Your task to perform on an android device: Open my contact list Image 0: 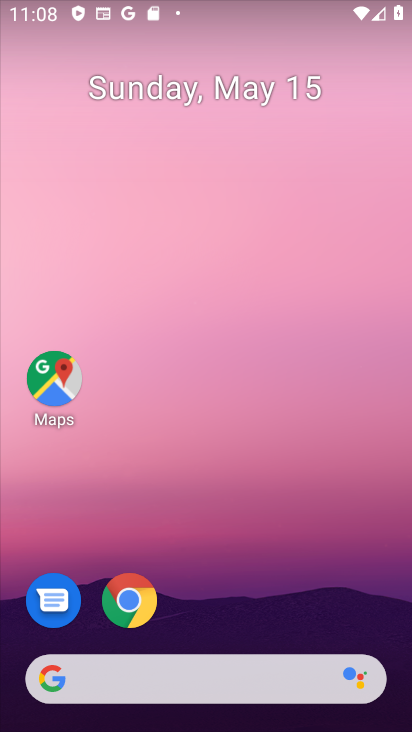
Step 0: drag from (255, 530) to (281, 98)
Your task to perform on an android device: Open my contact list Image 1: 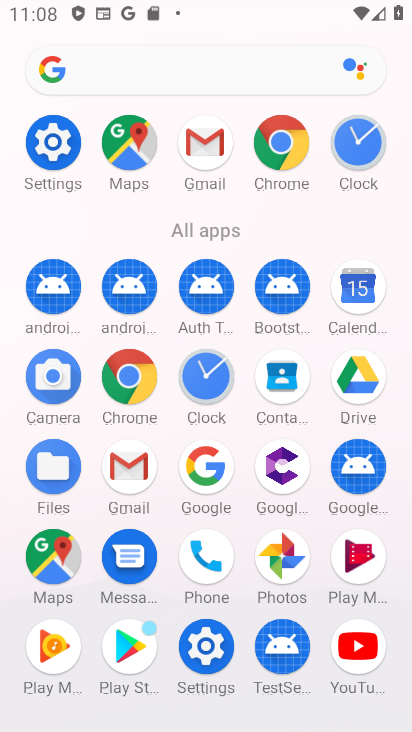
Step 1: click (271, 384)
Your task to perform on an android device: Open my contact list Image 2: 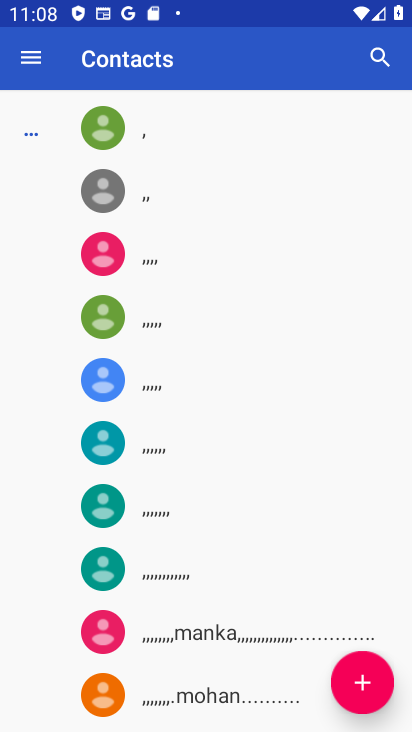
Step 2: task complete